Your task to perform on an android device: Open sound settings Image 0: 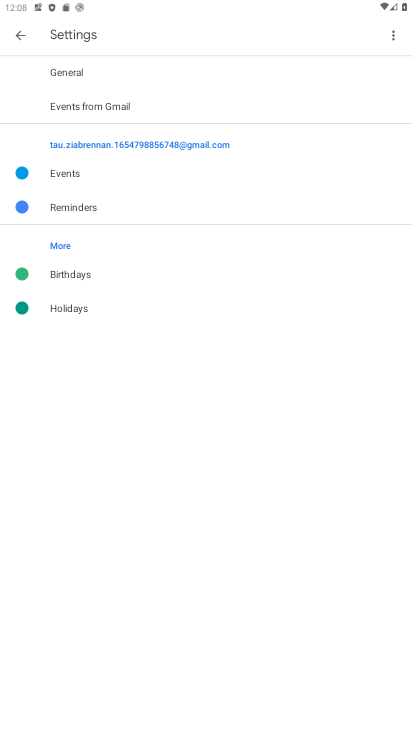
Step 0: press home button
Your task to perform on an android device: Open sound settings Image 1: 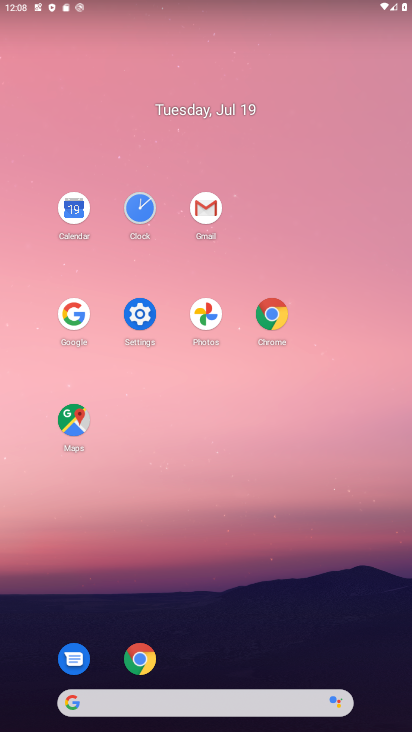
Step 1: click (134, 302)
Your task to perform on an android device: Open sound settings Image 2: 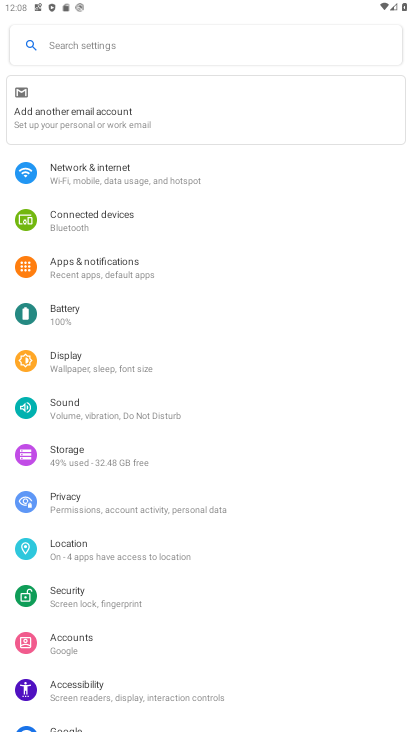
Step 2: click (120, 408)
Your task to perform on an android device: Open sound settings Image 3: 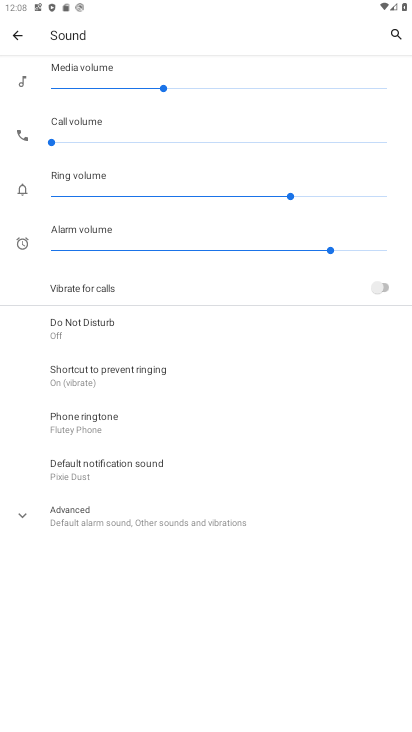
Step 3: task complete